Your task to perform on an android device: open the mobile data screen to see how much data has been used Image 0: 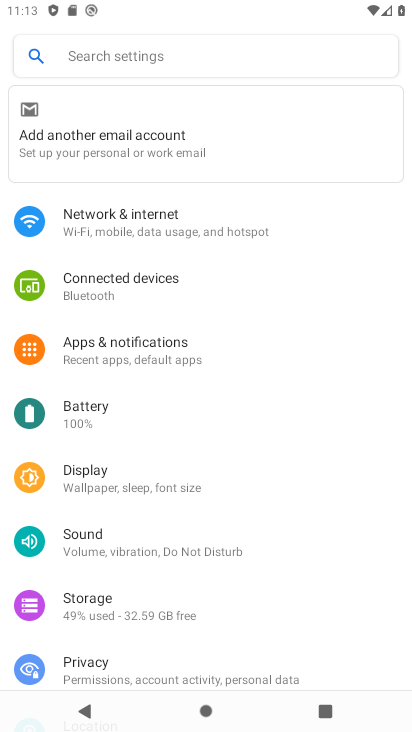
Step 0: press home button
Your task to perform on an android device: open the mobile data screen to see how much data has been used Image 1: 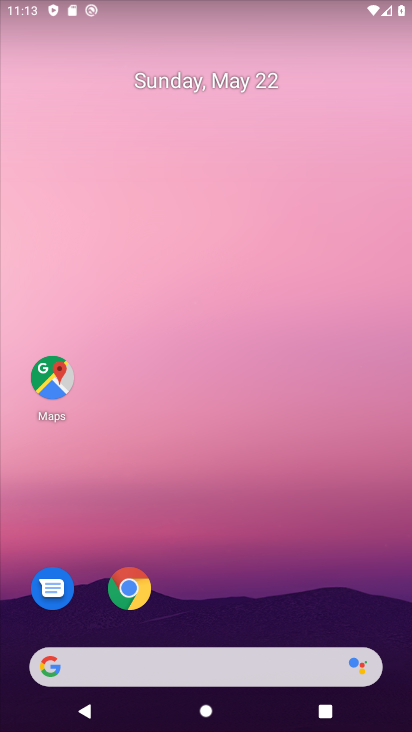
Step 1: drag from (212, 633) to (161, 2)
Your task to perform on an android device: open the mobile data screen to see how much data has been used Image 2: 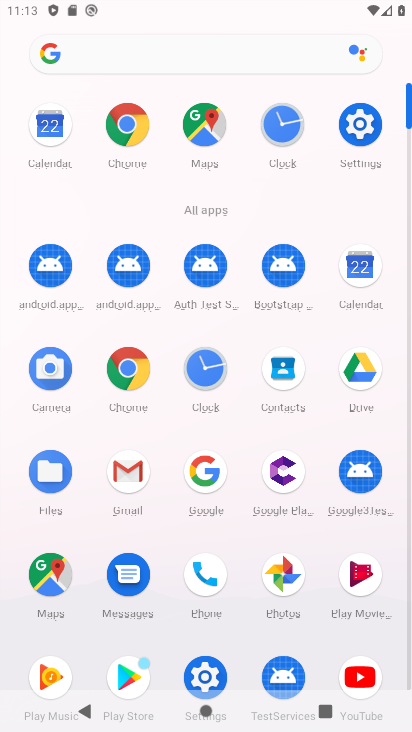
Step 2: click (368, 115)
Your task to perform on an android device: open the mobile data screen to see how much data has been used Image 3: 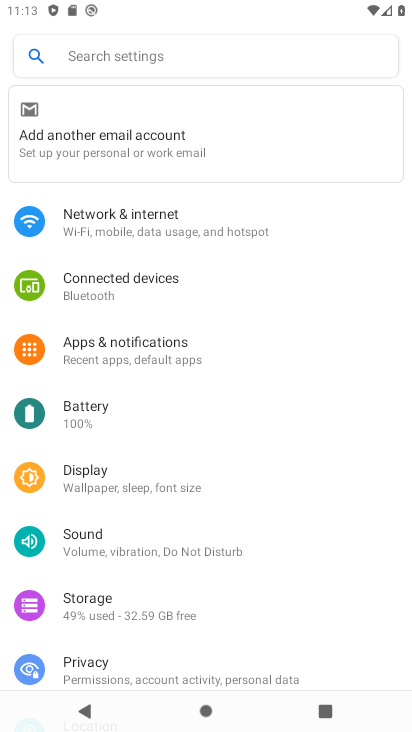
Step 3: click (104, 222)
Your task to perform on an android device: open the mobile data screen to see how much data has been used Image 4: 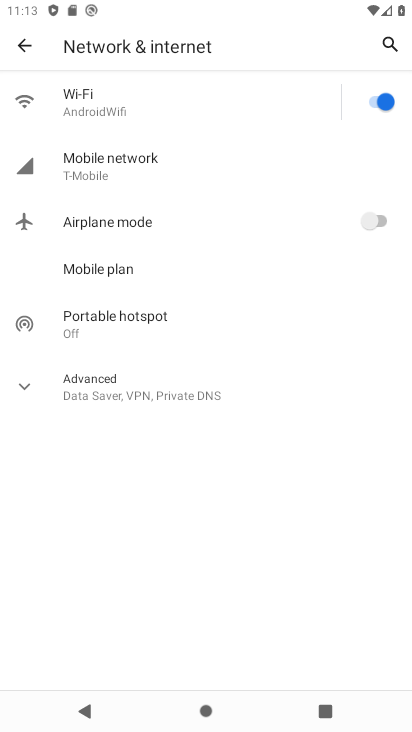
Step 4: click (14, 172)
Your task to perform on an android device: open the mobile data screen to see how much data has been used Image 5: 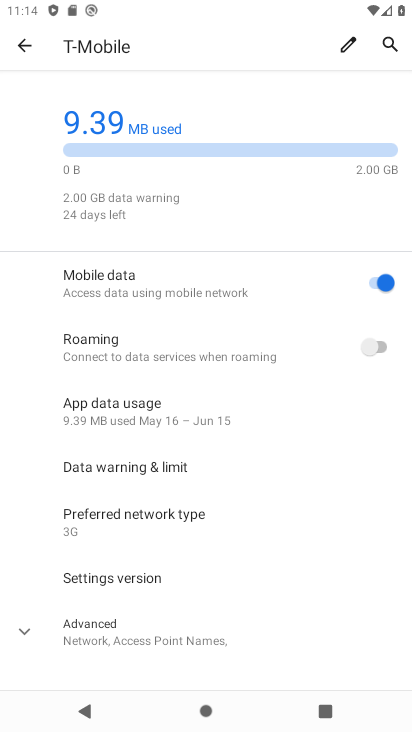
Step 5: task complete